Your task to perform on an android device: Open location settings Image 0: 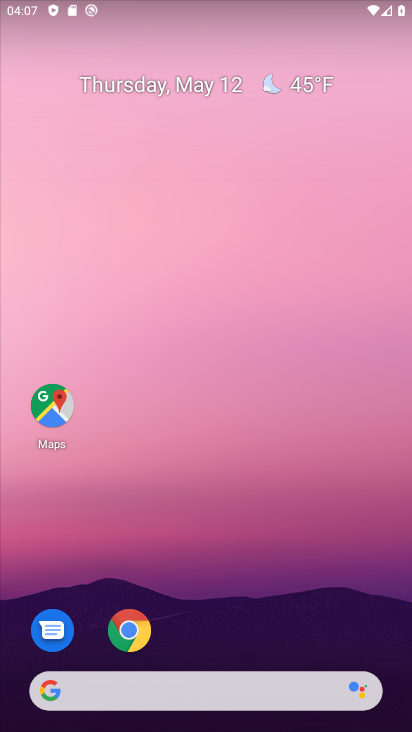
Step 0: drag from (210, 639) to (175, 4)
Your task to perform on an android device: Open location settings Image 1: 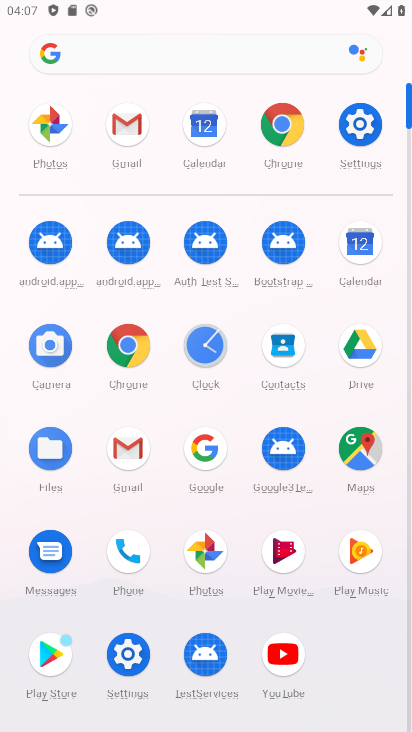
Step 1: click (354, 137)
Your task to perform on an android device: Open location settings Image 2: 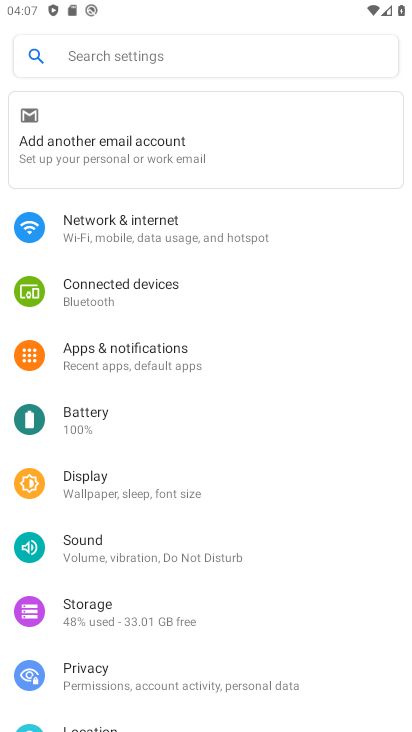
Step 2: drag from (153, 604) to (151, 343)
Your task to perform on an android device: Open location settings Image 3: 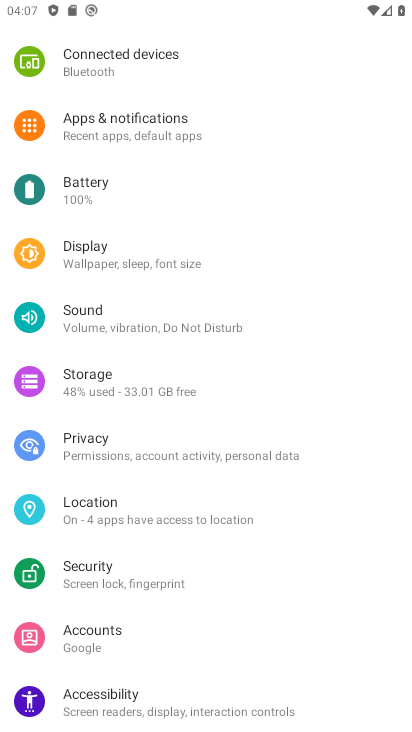
Step 3: click (93, 512)
Your task to perform on an android device: Open location settings Image 4: 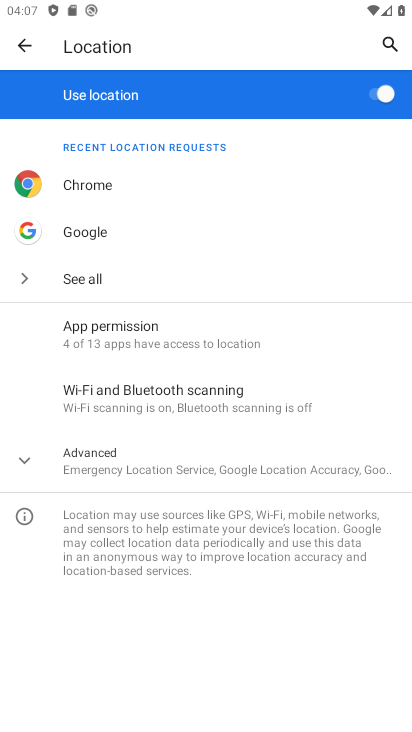
Step 4: task complete